Your task to perform on an android device: all mails in gmail Image 0: 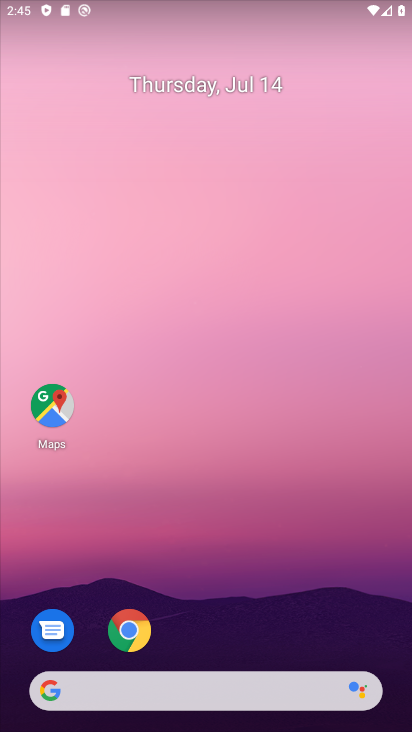
Step 0: drag from (233, 676) to (327, 223)
Your task to perform on an android device: all mails in gmail Image 1: 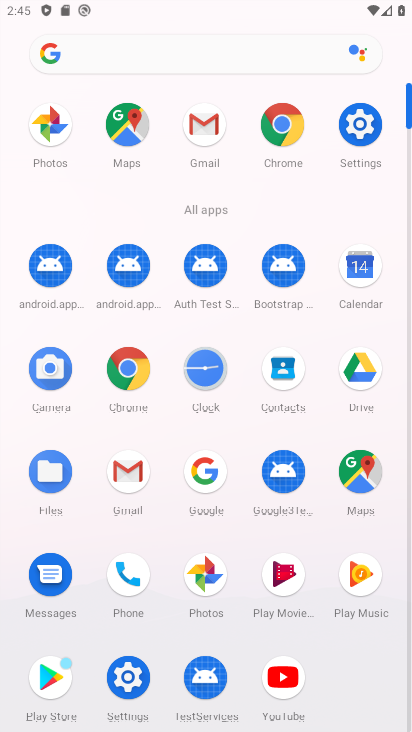
Step 1: click (138, 485)
Your task to perform on an android device: all mails in gmail Image 2: 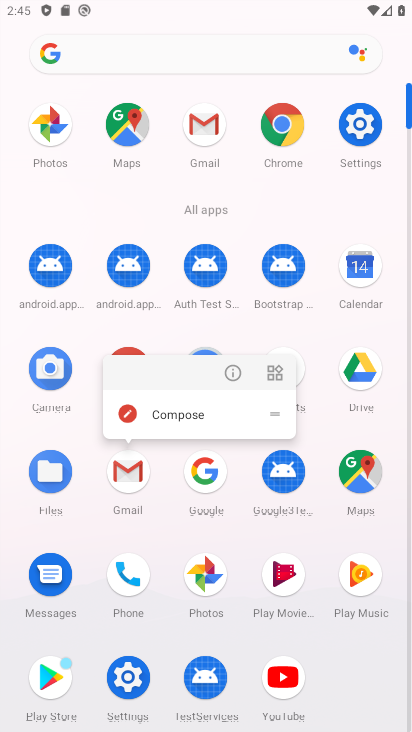
Step 2: click (138, 485)
Your task to perform on an android device: all mails in gmail Image 3: 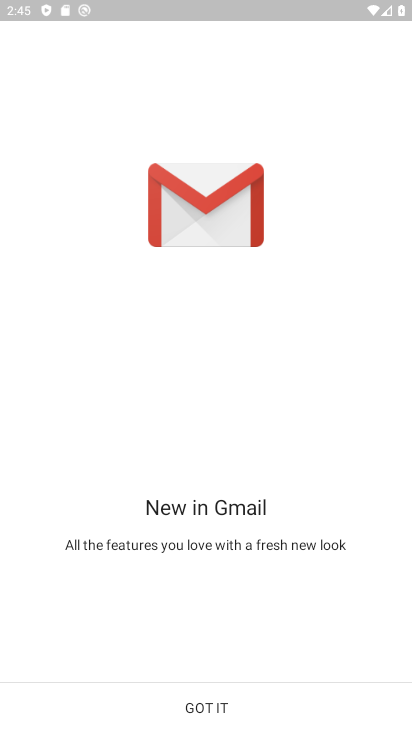
Step 3: click (228, 715)
Your task to perform on an android device: all mails in gmail Image 4: 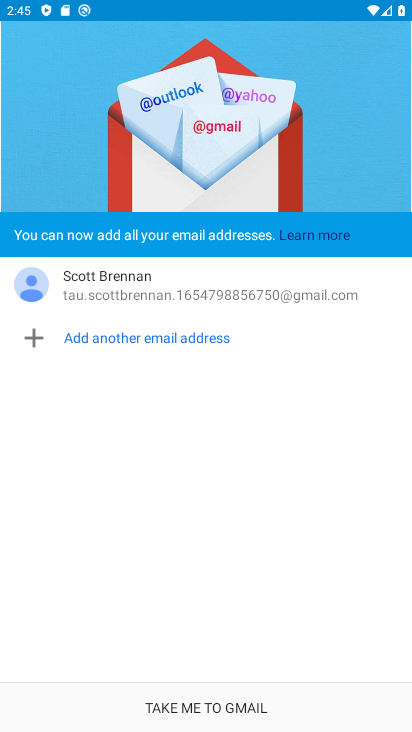
Step 4: click (208, 712)
Your task to perform on an android device: all mails in gmail Image 5: 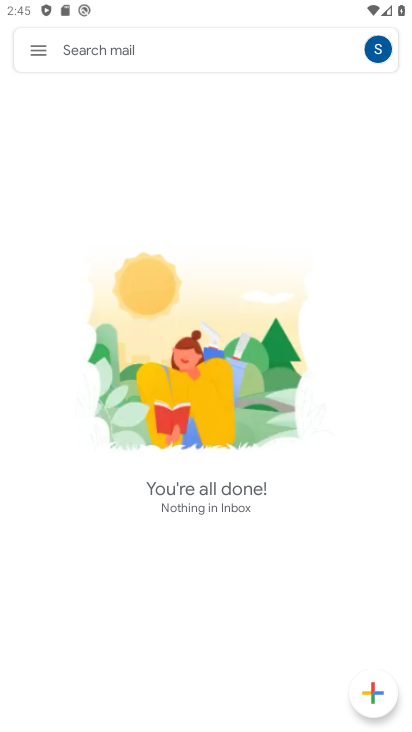
Step 5: click (36, 47)
Your task to perform on an android device: all mails in gmail Image 6: 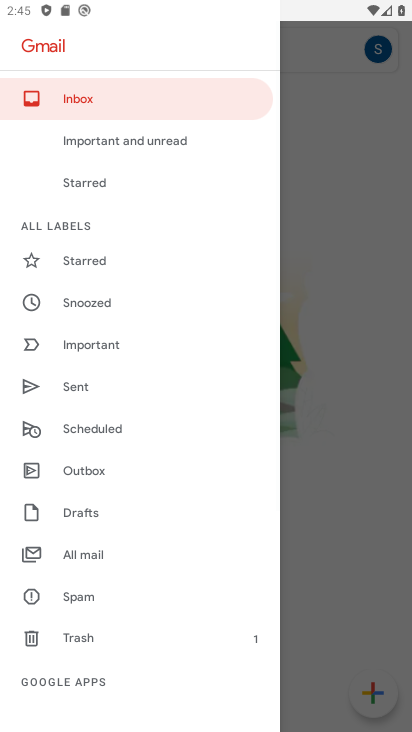
Step 6: click (106, 561)
Your task to perform on an android device: all mails in gmail Image 7: 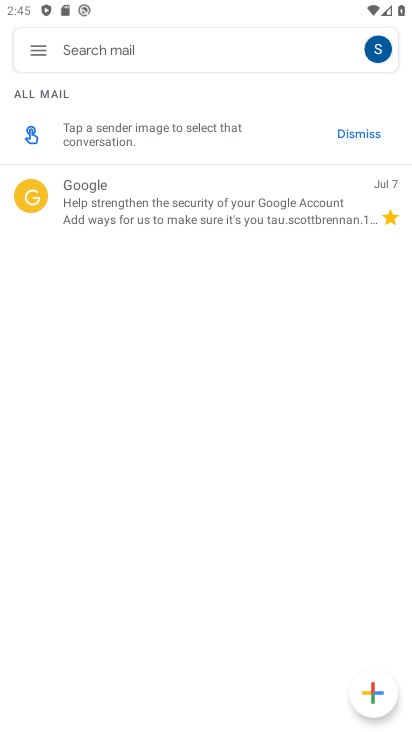
Step 7: task complete